Your task to perform on an android device: Open CNN.com Image 0: 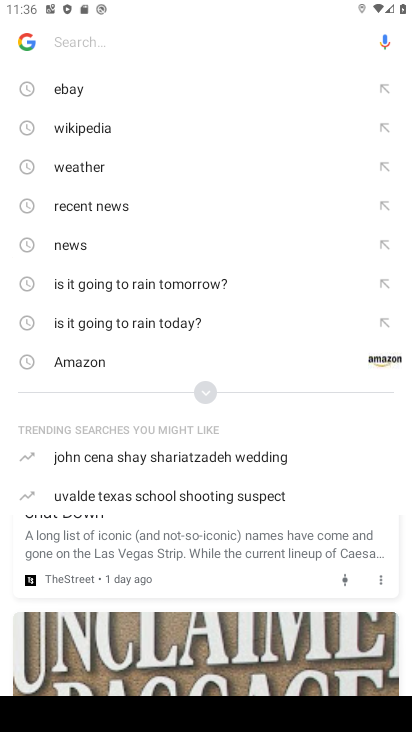
Step 0: press home button
Your task to perform on an android device: Open CNN.com Image 1: 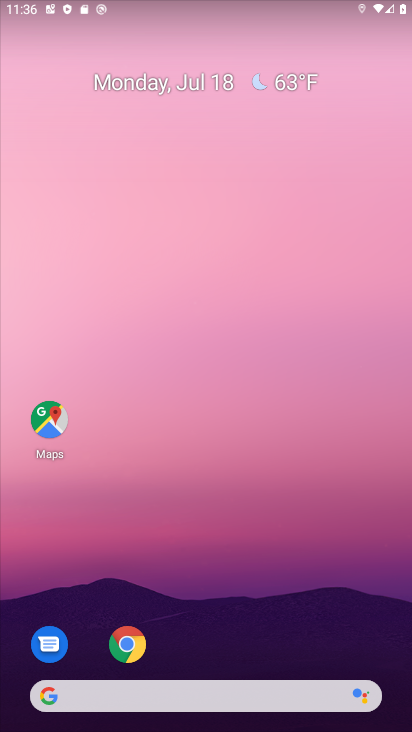
Step 1: click (198, 261)
Your task to perform on an android device: Open CNN.com Image 2: 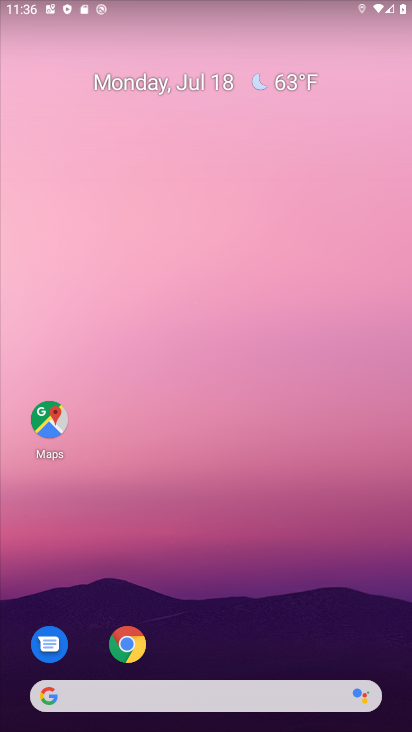
Step 2: drag from (216, 681) to (250, 201)
Your task to perform on an android device: Open CNN.com Image 3: 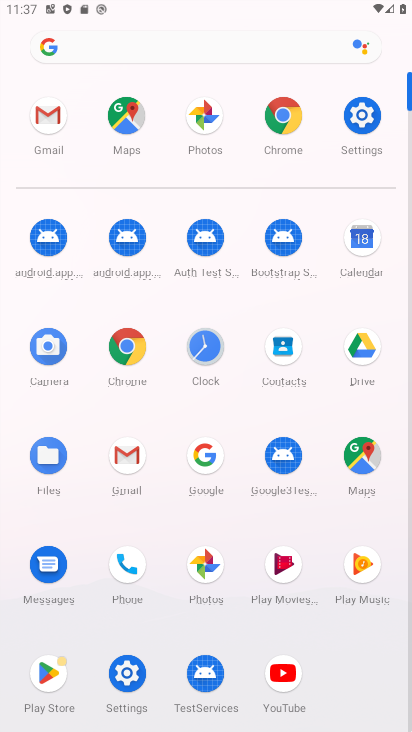
Step 3: click (283, 113)
Your task to perform on an android device: Open CNN.com Image 4: 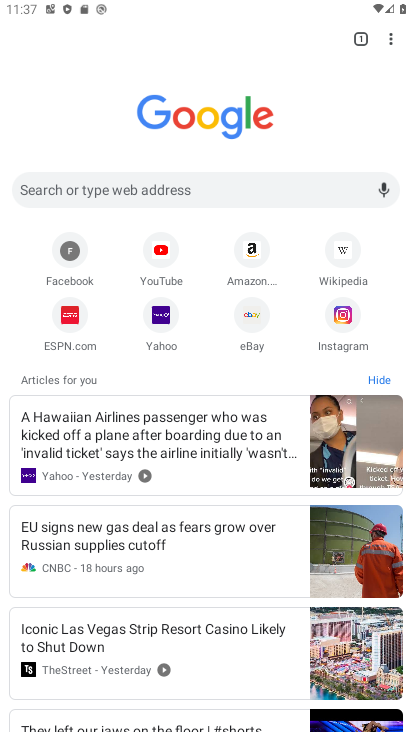
Step 4: click (224, 189)
Your task to perform on an android device: Open CNN.com Image 5: 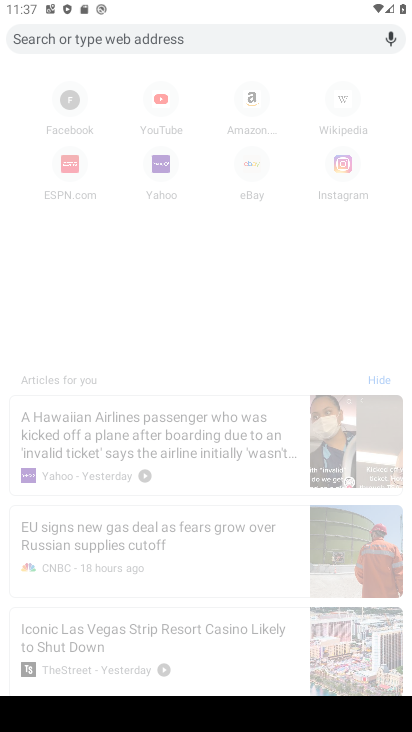
Step 5: type "CNN.com"
Your task to perform on an android device: Open CNN.com Image 6: 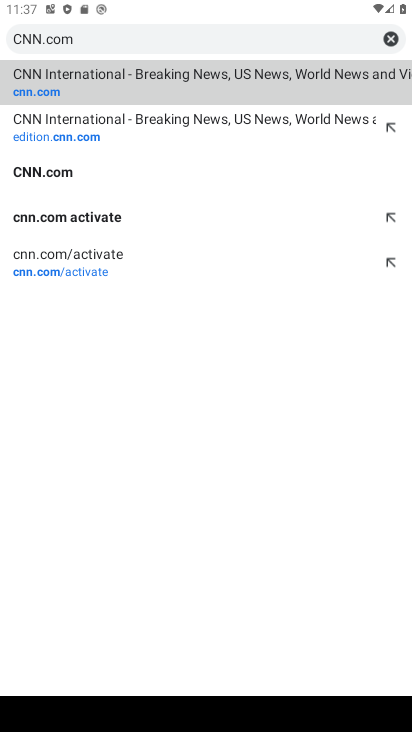
Step 6: click (84, 76)
Your task to perform on an android device: Open CNN.com Image 7: 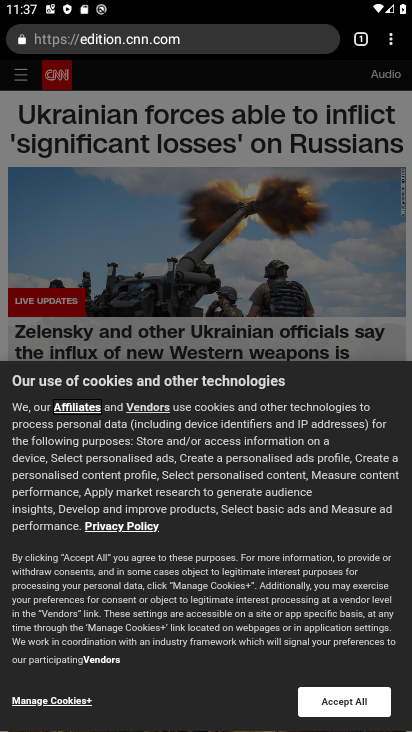
Step 7: task complete